Your task to perform on an android device: see tabs open on other devices in the chrome app Image 0: 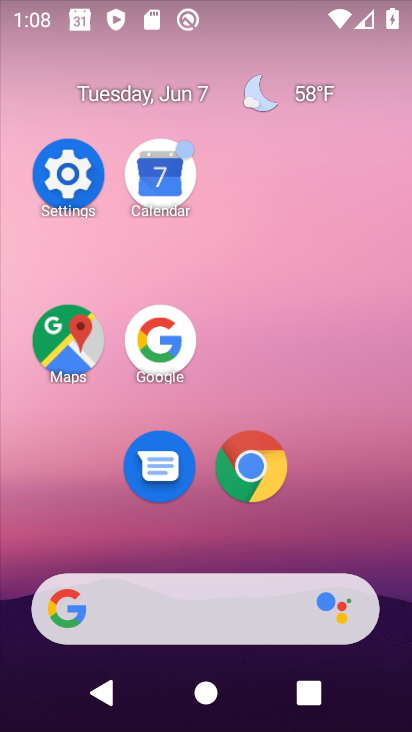
Step 0: click (276, 459)
Your task to perform on an android device: see tabs open on other devices in the chrome app Image 1: 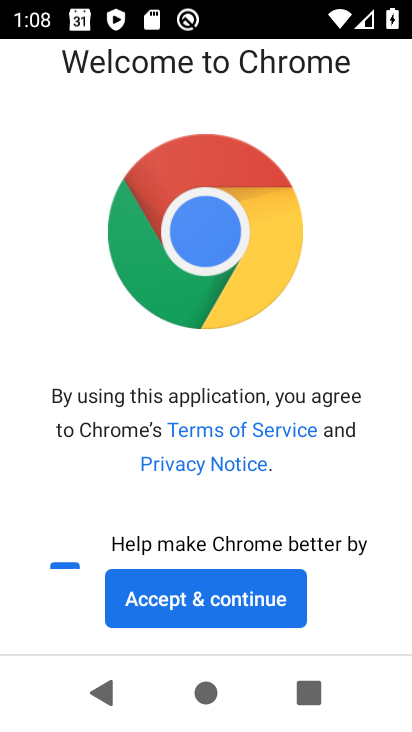
Step 1: click (140, 585)
Your task to perform on an android device: see tabs open on other devices in the chrome app Image 2: 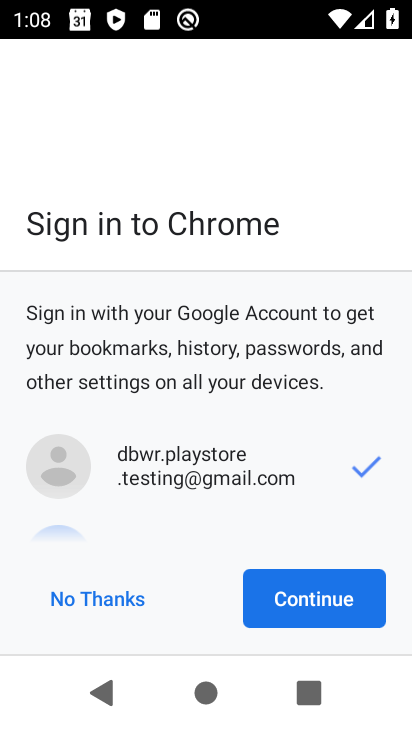
Step 2: click (352, 594)
Your task to perform on an android device: see tabs open on other devices in the chrome app Image 3: 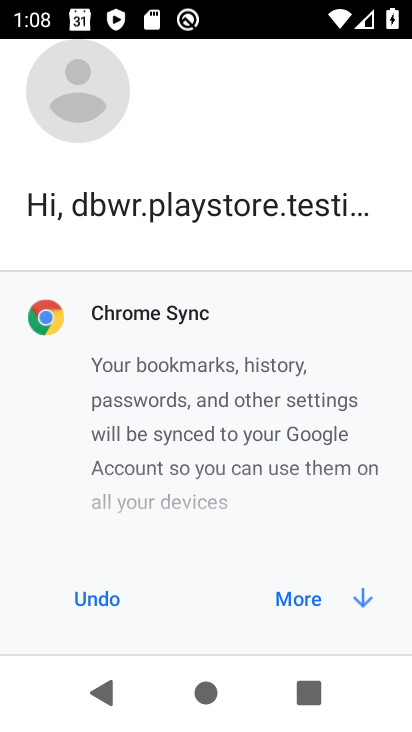
Step 3: click (326, 595)
Your task to perform on an android device: see tabs open on other devices in the chrome app Image 4: 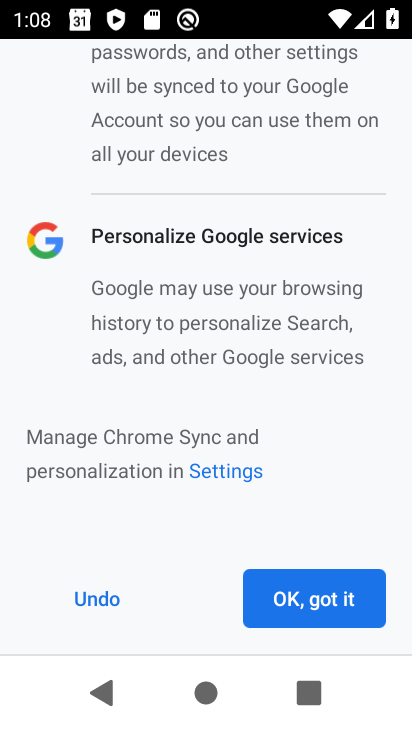
Step 4: click (326, 595)
Your task to perform on an android device: see tabs open on other devices in the chrome app Image 5: 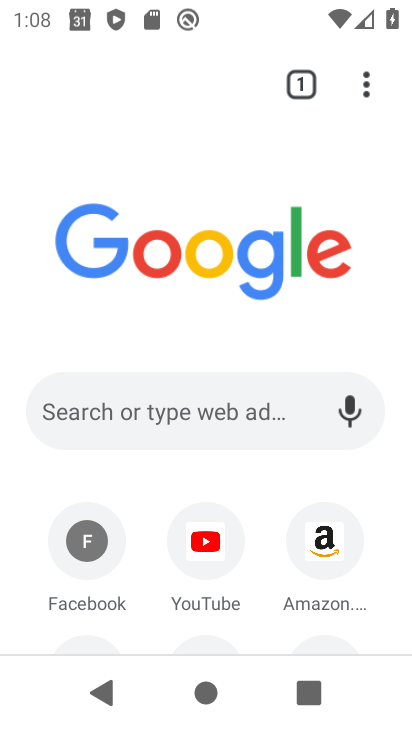
Step 5: click (359, 74)
Your task to perform on an android device: see tabs open on other devices in the chrome app Image 6: 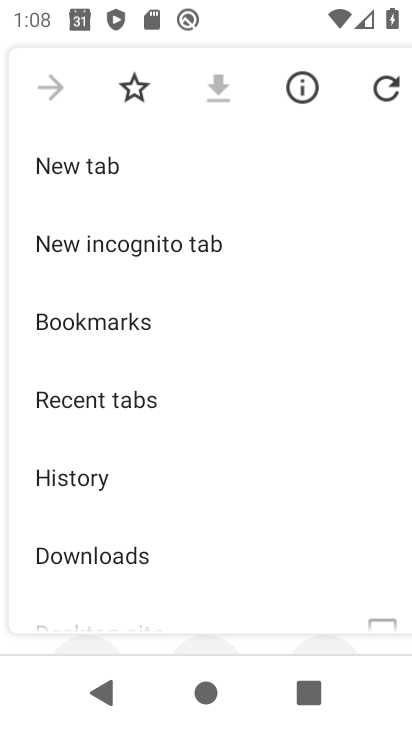
Step 6: click (161, 403)
Your task to perform on an android device: see tabs open on other devices in the chrome app Image 7: 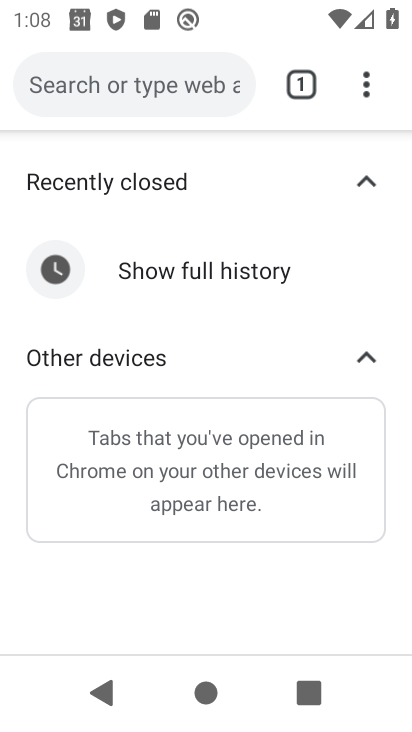
Step 7: task complete